Your task to perform on an android device: add a contact Image 0: 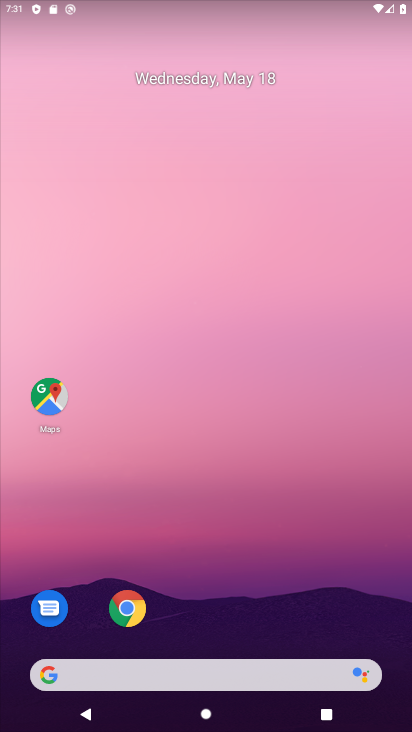
Step 0: drag from (253, 616) to (219, 86)
Your task to perform on an android device: add a contact Image 1: 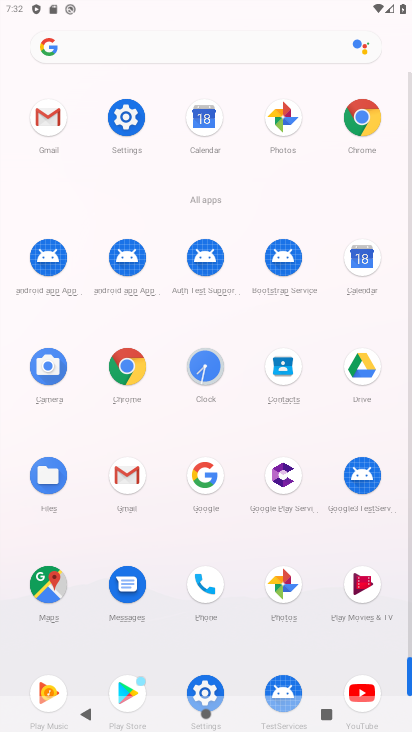
Step 1: click (281, 360)
Your task to perform on an android device: add a contact Image 2: 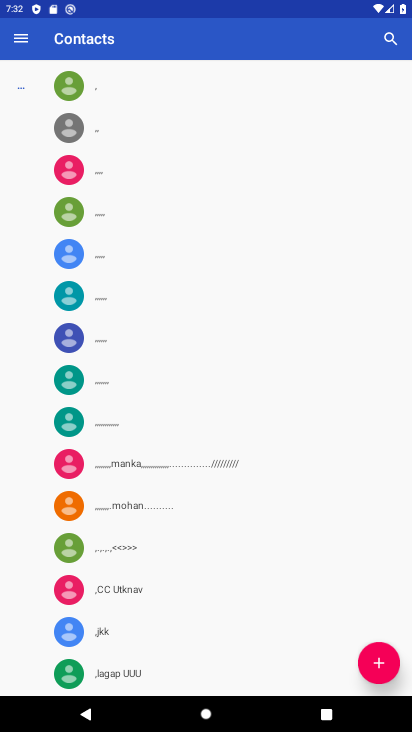
Step 2: click (383, 657)
Your task to perform on an android device: add a contact Image 3: 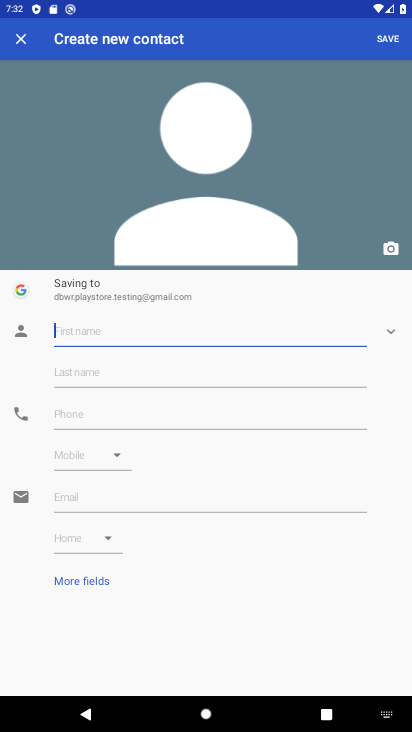
Step 3: click (116, 327)
Your task to perform on an android device: add a contact Image 4: 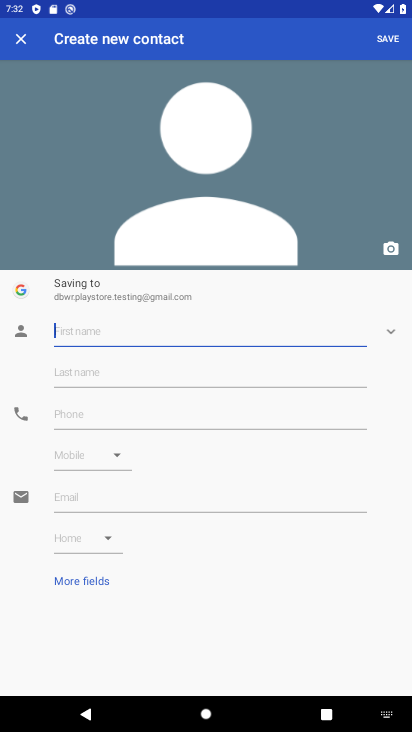
Step 4: type "ffrtrg"
Your task to perform on an android device: add a contact Image 5: 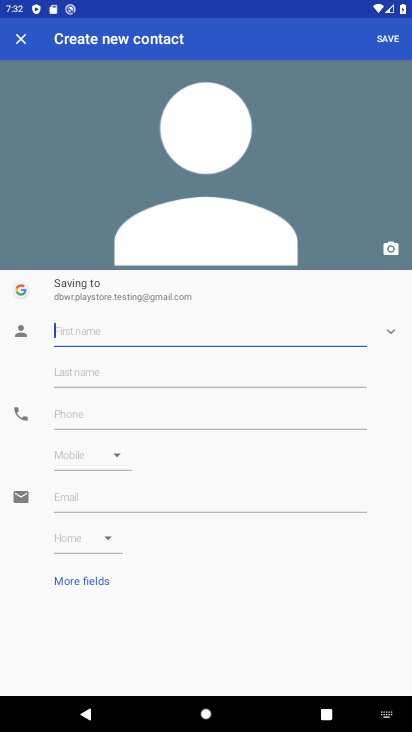
Step 5: click (162, 418)
Your task to perform on an android device: add a contact Image 6: 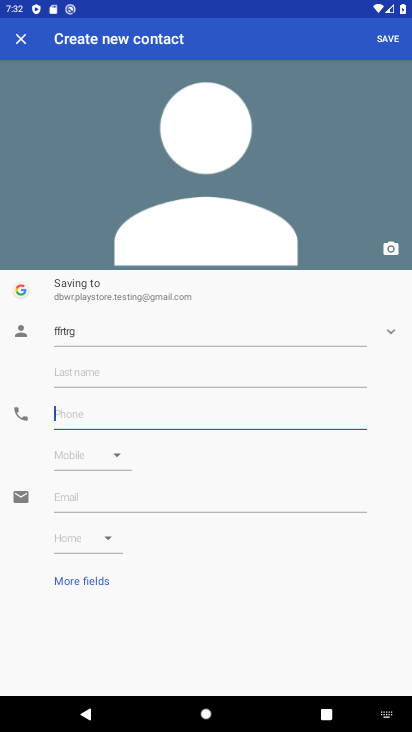
Step 6: type "7677473333"
Your task to perform on an android device: add a contact Image 7: 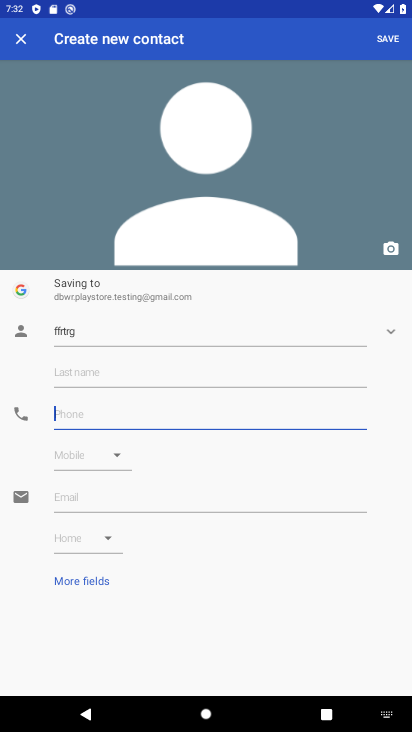
Step 7: click (384, 45)
Your task to perform on an android device: add a contact Image 8: 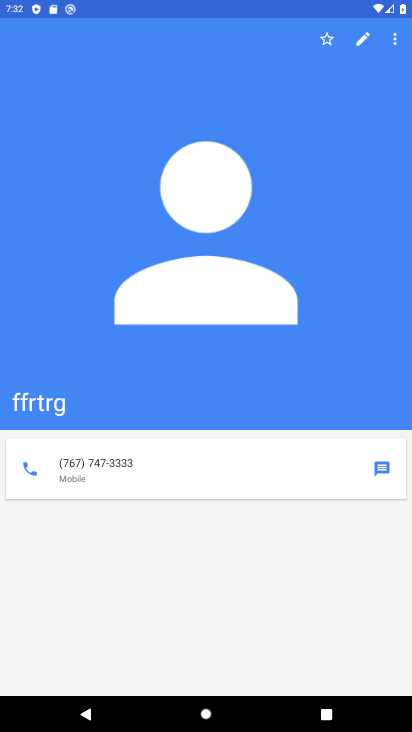
Step 8: task complete